Your task to perform on an android device: Go to settings Image 0: 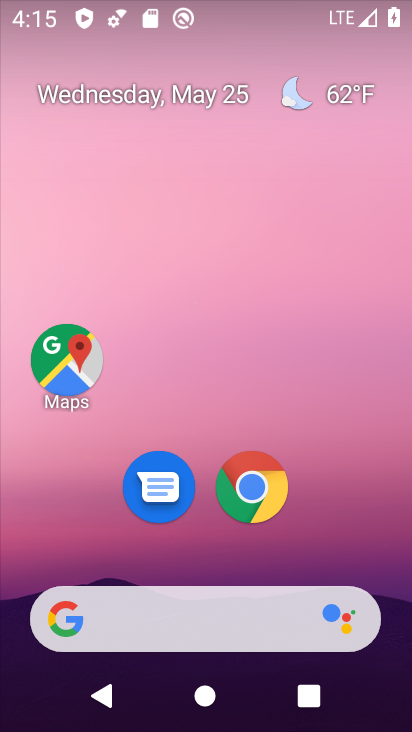
Step 0: drag from (346, 437) to (366, 20)
Your task to perform on an android device: Go to settings Image 1: 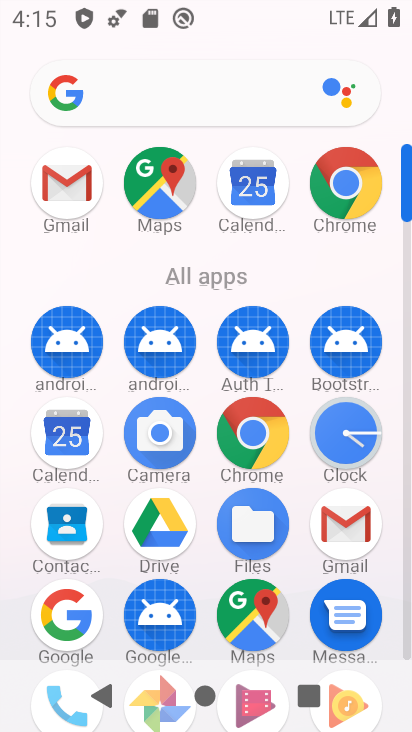
Step 1: drag from (229, 285) to (233, 14)
Your task to perform on an android device: Go to settings Image 2: 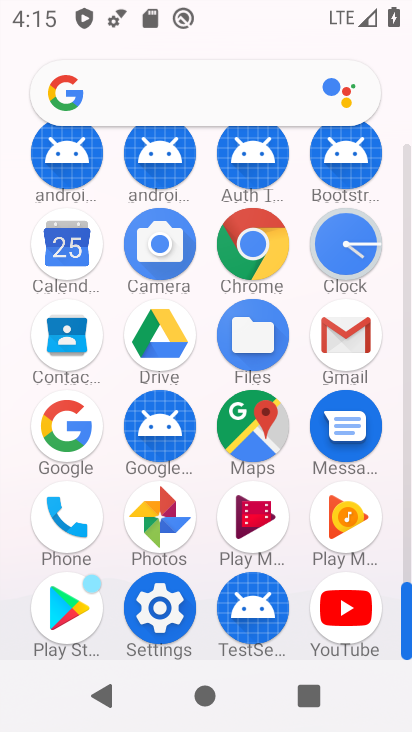
Step 2: click (159, 638)
Your task to perform on an android device: Go to settings Image 3: 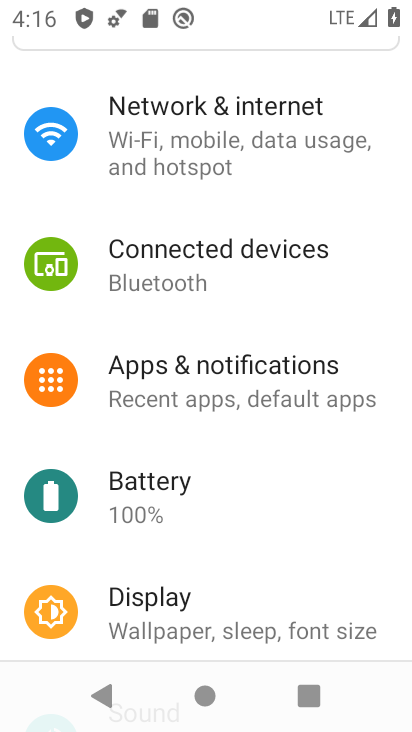
Step 3: task complete